Your task to perform on an android device: Open calendar and show me the second week of next month Image 0: 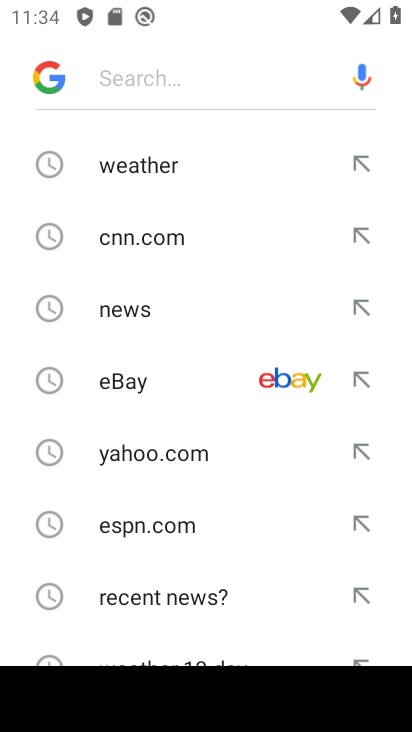
Step 0: press home button
Your task to perform on an android device: Open calendar and show me the second week of next month Image 1: 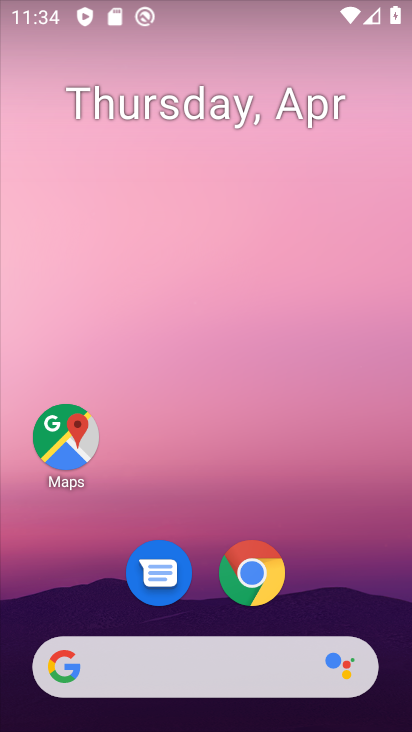
Step 1: drag from (307, 556) to (269, 90)
Your task to perform on an android device: Open calendar and show me the second week of next month Image 2: 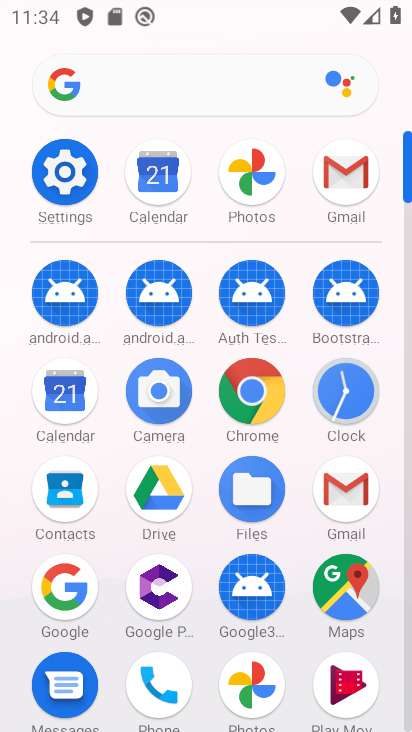
Step 2: click (67, 401)
Your task to perform on an android device: Open calendar and show me the second week of next month Image 3: 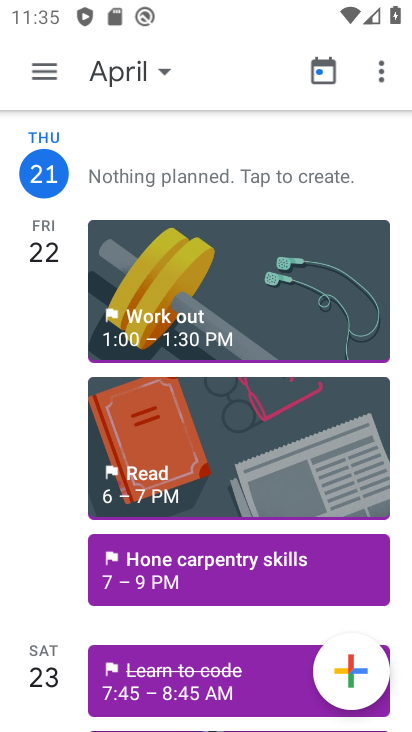
Step 3: click (41, 65)
Your task to perform on an android device: Open calendar and show me the second week of next month Image 4: 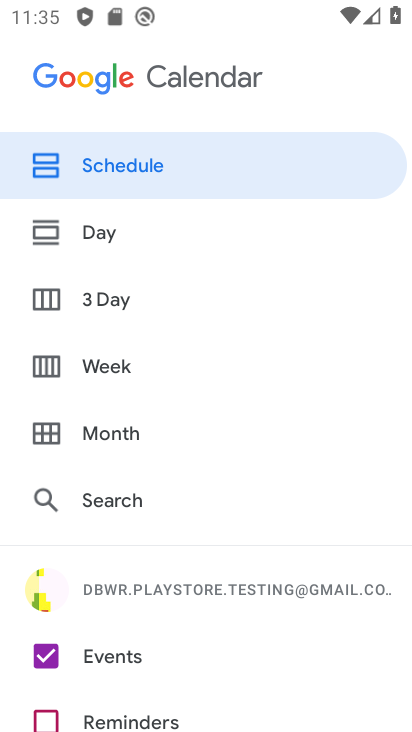
Step 4: click (101, 367)
Your task to perform on an android device: Open calendar and show me the second week of next month Image 5: 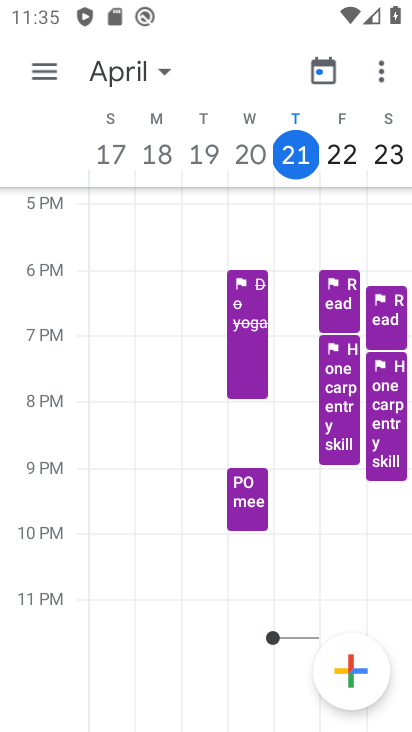
Step 5: drag from (296, 411) to (7, 312)
Your task to perform on an android device: Open calendar and show me the second week of next month Image 6: 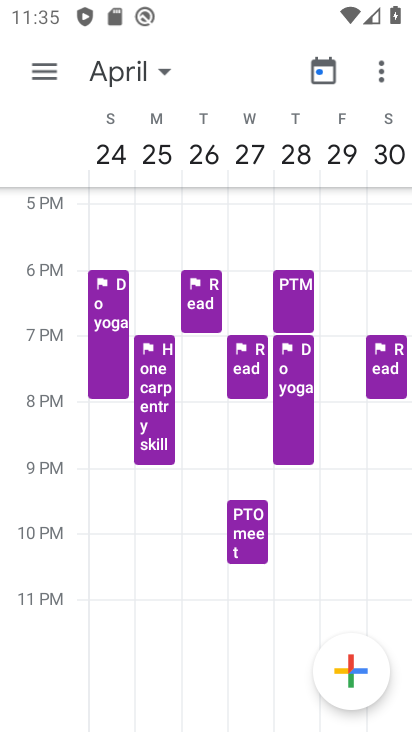
Step 6: click (163, 73)
Your task to perform on an android device: Open calendar and show me the second week of next month Image 7: 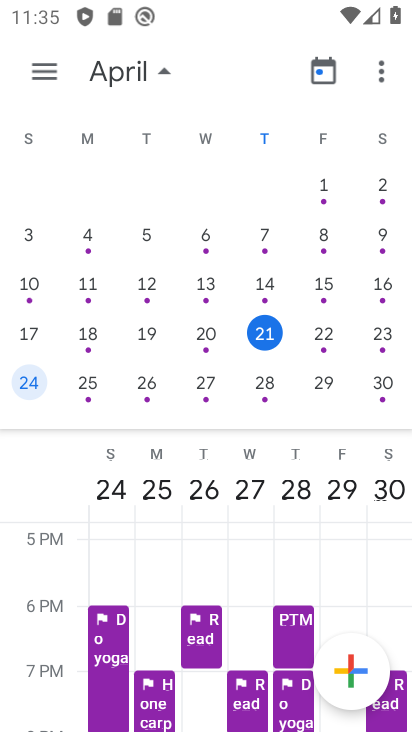
Step 7: drag from (325, 341) to (0, 309)
Your task to perform on an android device: Open calendar and show me the second week of next month Image 8: 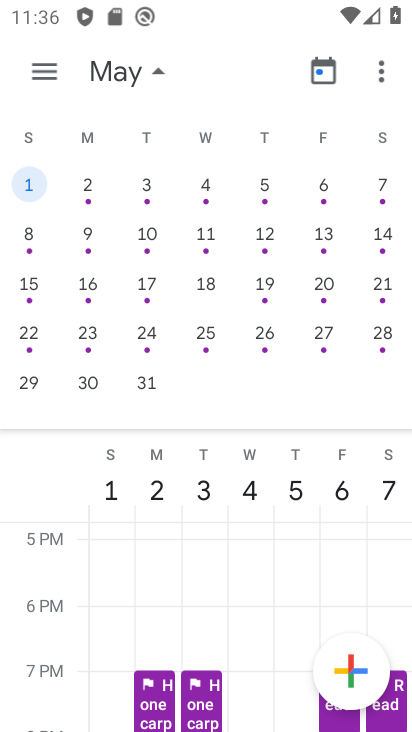
Step 8: click (34, 230)
Your task to perform on an android device: Open calendar and show me the second week of next month Image 9: 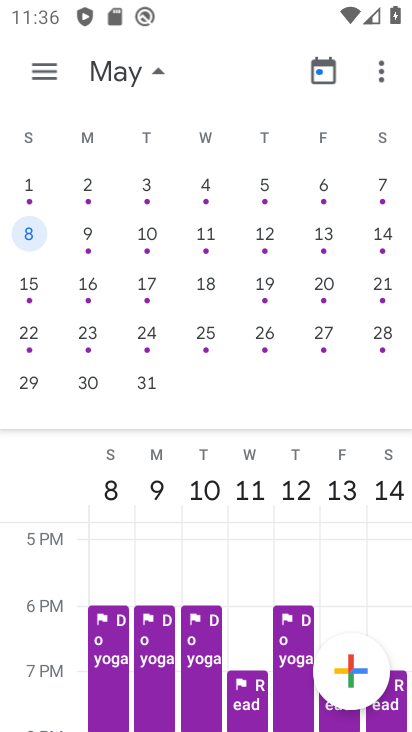
Step 9: task complete